Your task to perform on an android device: Go to eBay Image 0: 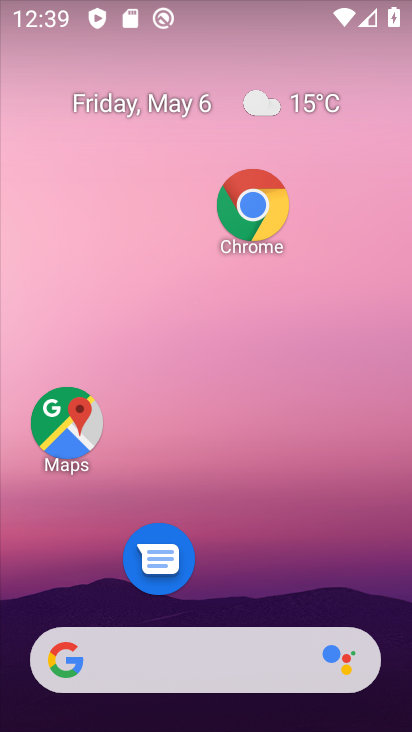
Step 0: drag from (207, 582) to (274, 18)
Your task to perform on an android device: Go to eBay Image 1: 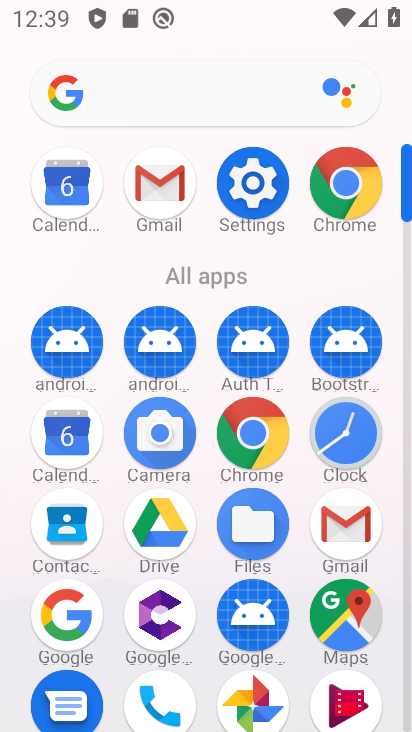
Step 1: click (245, 424)
Your task to perform on an android device: Go to eBay Image 2: 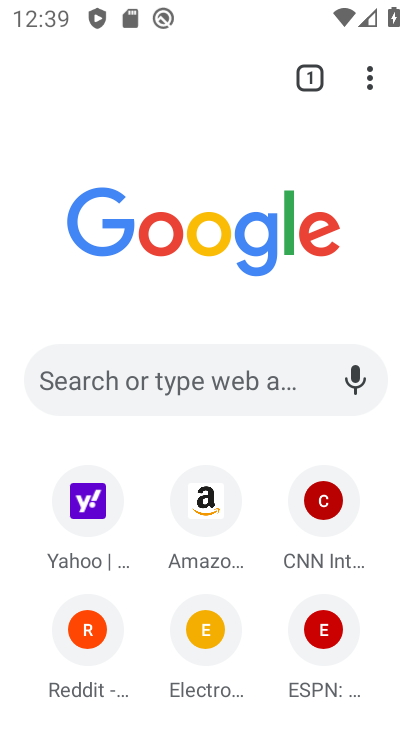
Step 2: click (238, 390)
Your task to perform on an android device: Go to eBay Image 3: 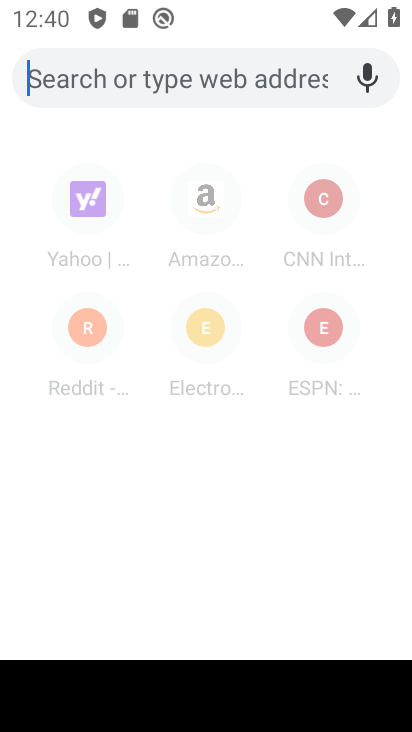
Step 3: type "ebay"
Your task to perform on an android device: Go to eBay Image 4: 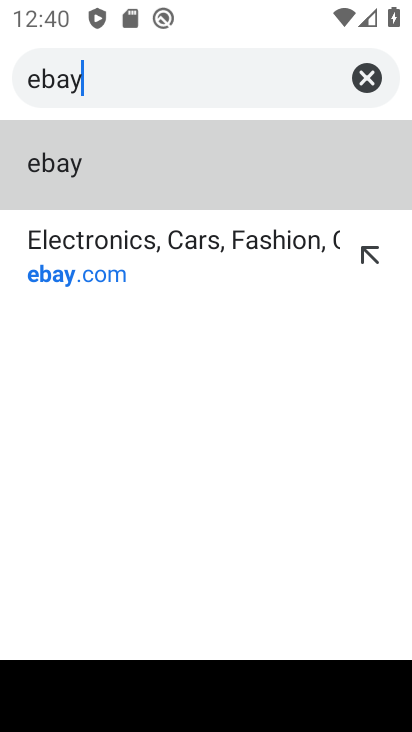
Step 4: click (192, 275)
Your task to perform on an android device: Go to eBay Image 5: 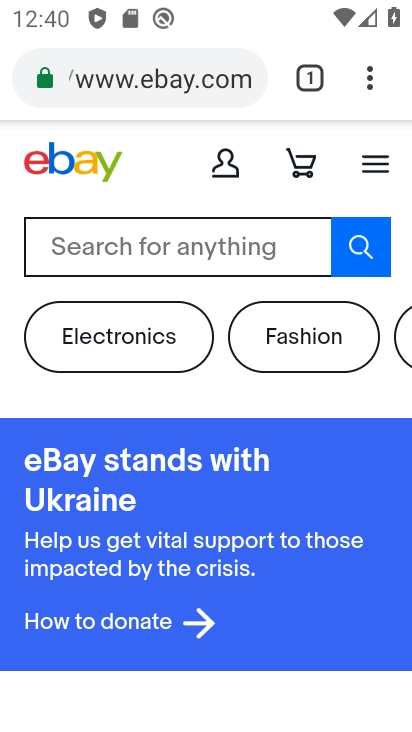
Step 5: task complete